Your task to perform on an android device: turn off priority inbox in the gmail app Image 0: 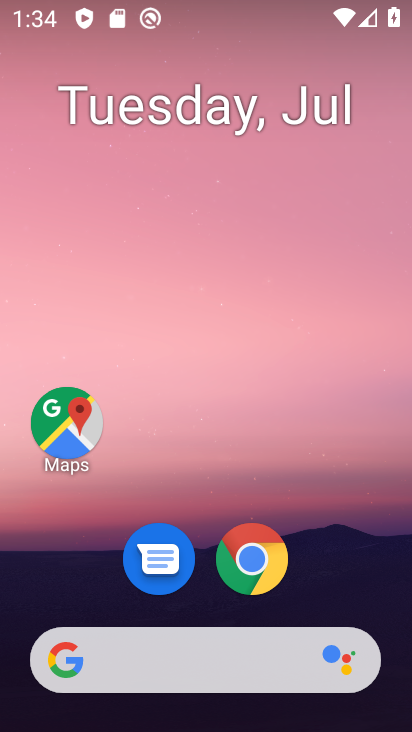
Step 0: drag from (351, 580) to (376, 92)
Your task to perform on an android device: turn off priority inbox in the gmail app Image 1: 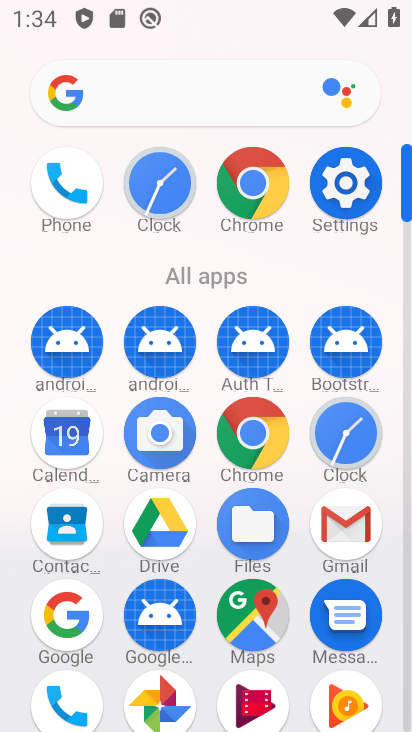
Step 1: click (352, 531)
Your task to perform on an android device: turn off priority inbox in the gmail app Image 2: 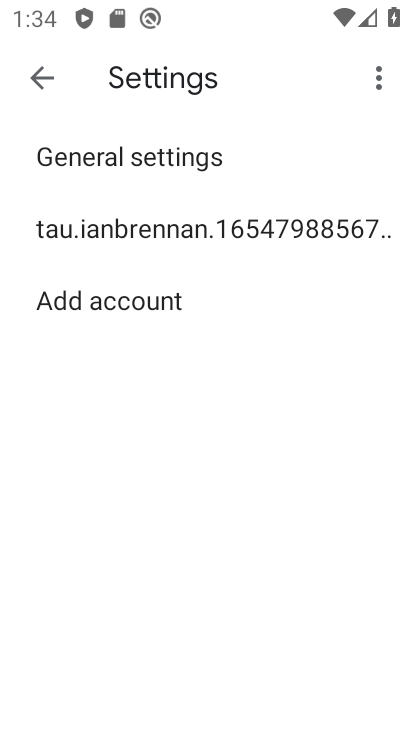
Step 2: click (248, 242)
Your task to perform on an android device: turn off priority inbox in the gmail app Image 3: 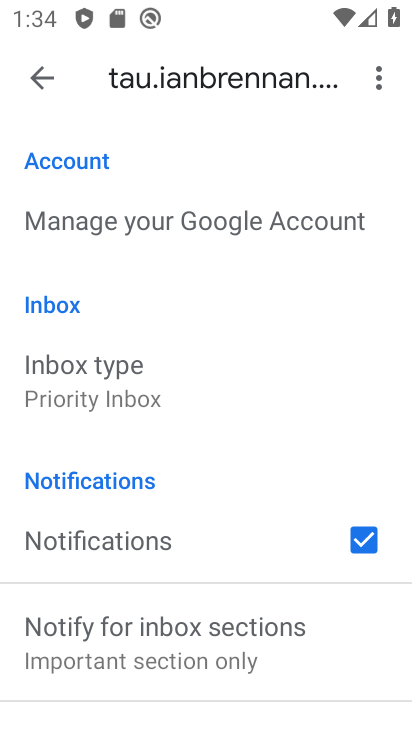
Step 3: drag from (273, 499) to (281, 425)
Your task to perform on an android device: turn off priority inbox in the gmail app Image 4: 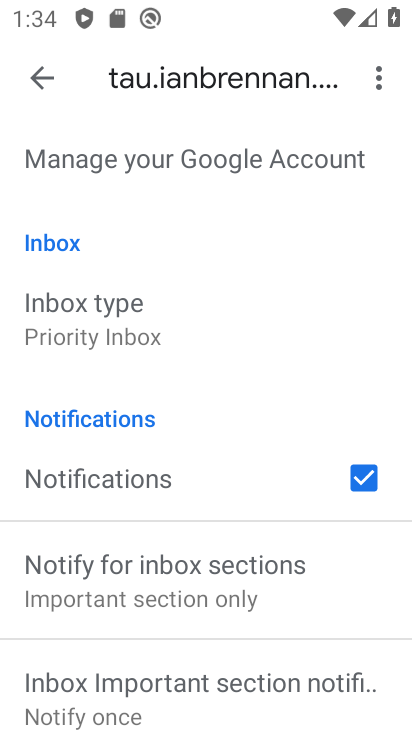
Step 4: drag from (282, 561) to (292, 438)
Your task to perform on an android device: turn off priority inbox in the gmail app Image 5: 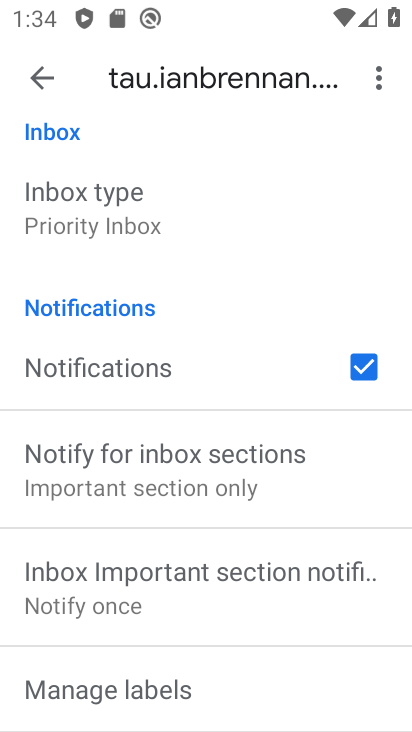
Step 5: drag from (296, 544) to (299, 433)
Your task to perform on an android device: turn off priority inbox in the gmail app Image 6: 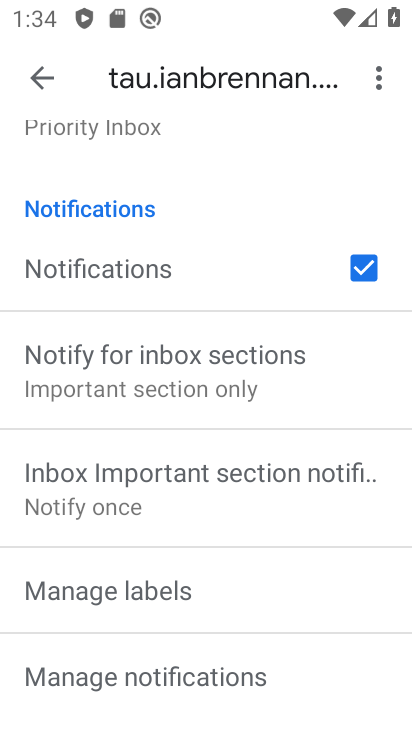
Step 6: drag from (294, 548) to (302, 417)
Your task to perform on an android device: turn off priority inbox in the gmail app Image 7: 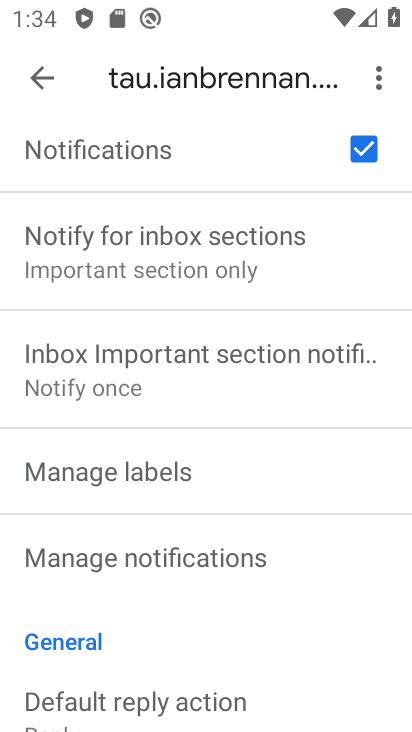
Step 7: drag from (321, 564) to (324, 443)
Your task to perform on an android device: turn off priority inbox in the gmail app Image 8: 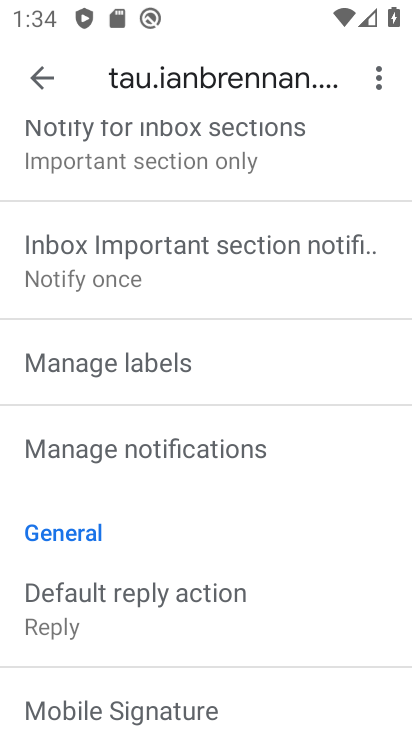
Step 8: drag from (324, 560) to (324, 450)
Your task to perform on an android device: turn off priority inbox in the gmail app Image 9: 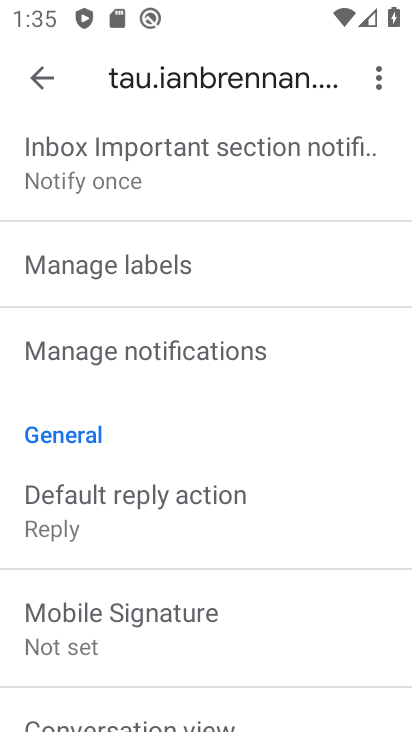
Step 9: drag from (312, 589) to (321, 489)
Your task to perform on an android device: turn off priority inbox in the gmail app Image 10: 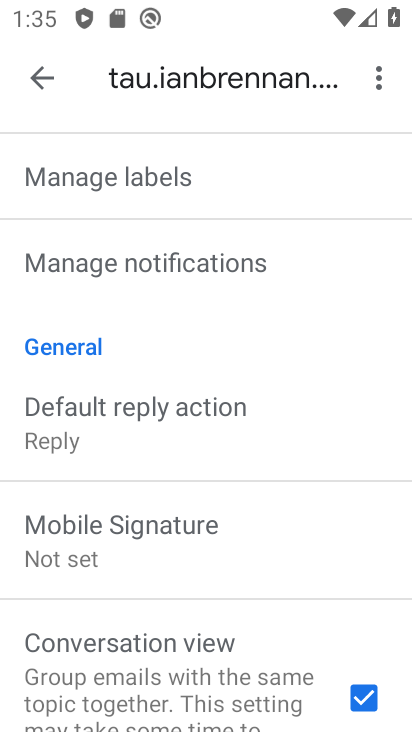
Step 10: drag from (312, 587) to (314, 445)
Your task to perform on an android device: turn off priority inbox in the gmail app Image 11: 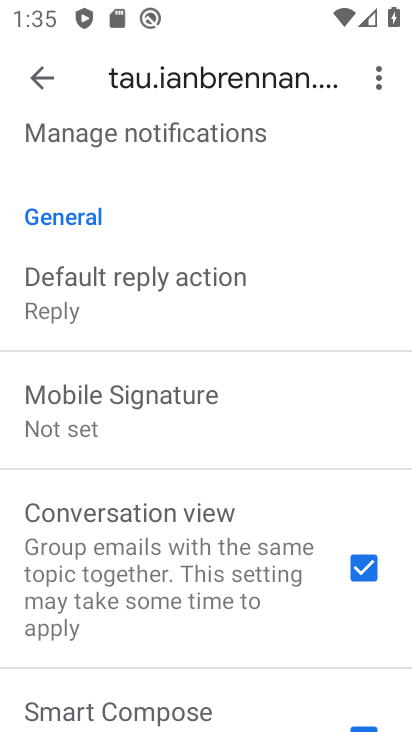
Step 11: drag from (293, 635) to (324, 326)
Your task to perform on an android device: turn off priority inbox in the gmail app Image 12: 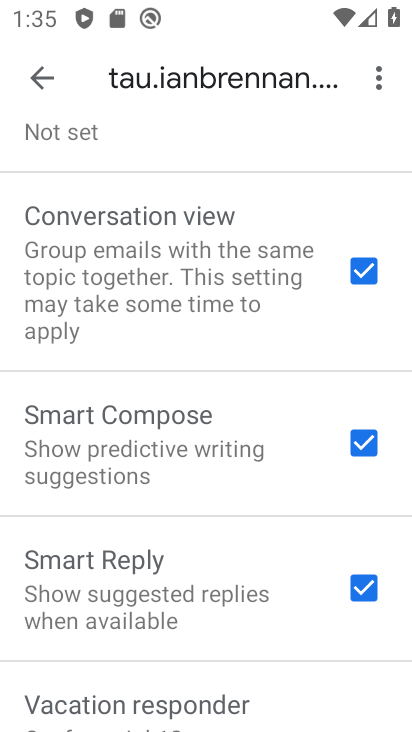
Step 12: drag from (292, 541) to (288, 353)
Your task to perform on an android device: turn off priority inbox in the gmail app Image 13: 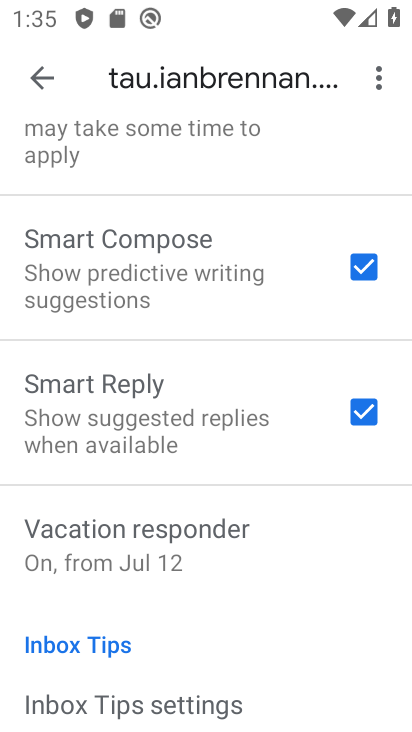
Step 13: drag from (286, 329) to (289, 443)
Your task to perform on an android device: turn off priority inbox in the gmail app Image 14: 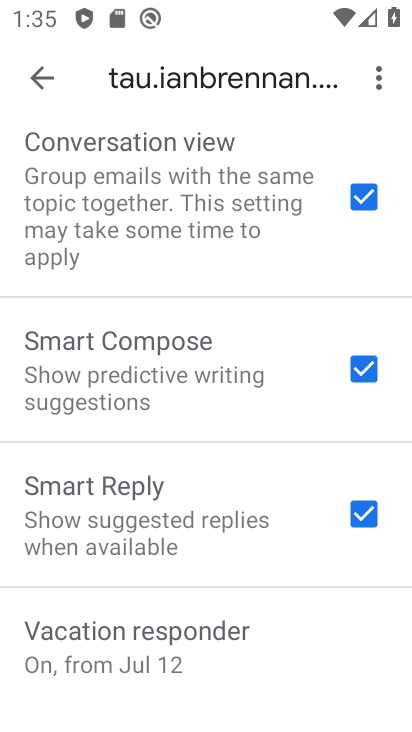
Step 14: drag from (297, 293) to (297, 403)
Your task to perform on an android device: turn off priority inbox in the gmail app Image 15: 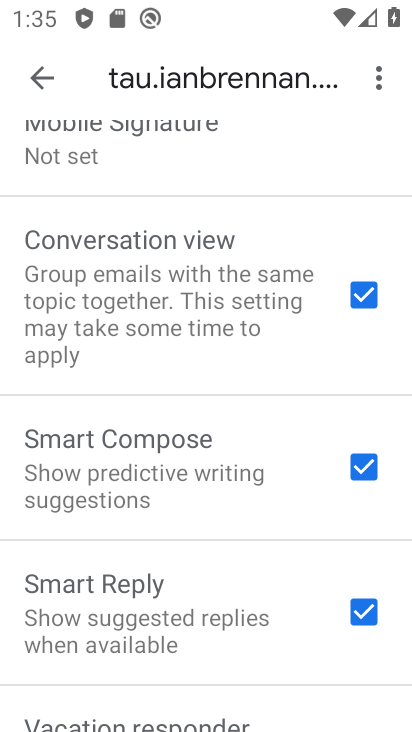
Step 15: drag from (291, 275) to (300, 413)
Your task to perform on an android device: turn off priority inbox in the gmail app Image 16: 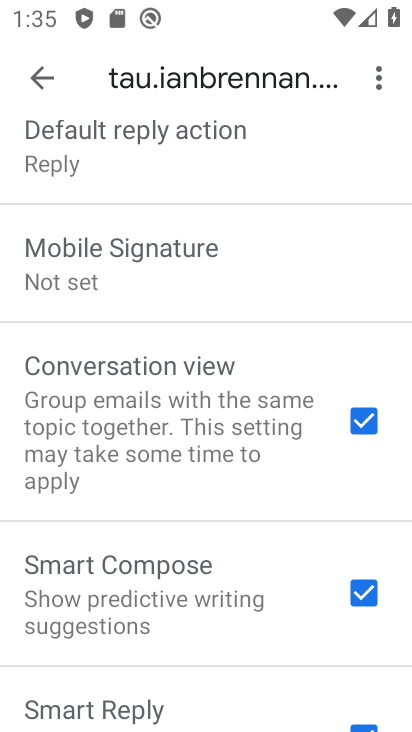
Step 16: drag from (289, 221) to (295, 371)
Your task to perform on an android device: turn off priority inbox in the gmail app Image 17: 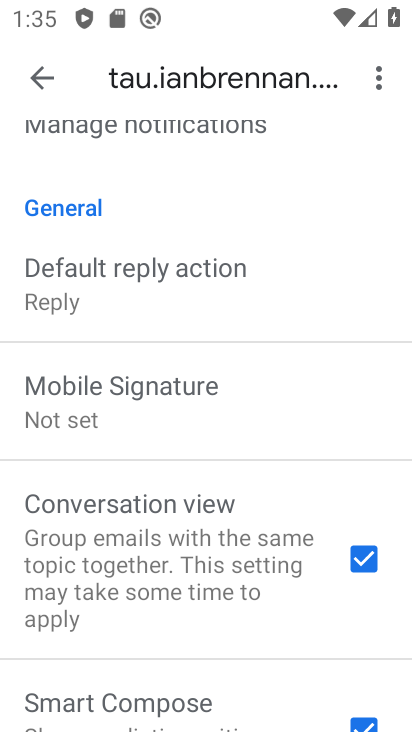
Step 17: drag from (311, 208) to (323, 424)
Your task to perform on an android device: turn off priority inbox in the gmail app Image 18: 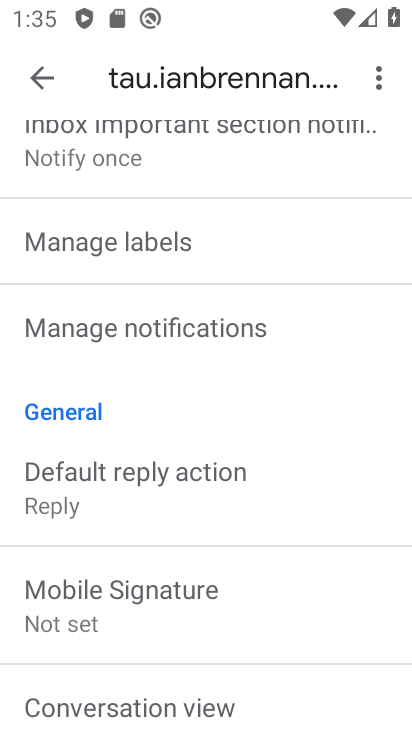
Step 18: drag from (314, 170) to (323, 375)
Your task to perform on an android device: turn off priority inbox in the gmail app Image 19: 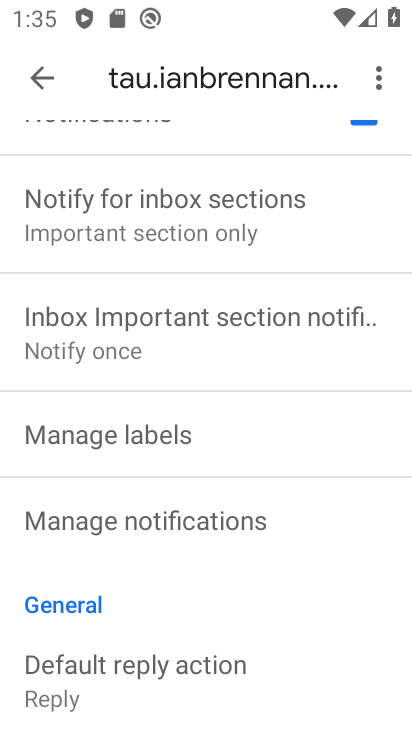
Step 19: drag from (324, 183) to (338, 375)
Your task to perform on an android device: turn off priority inbox in the gmail app Image 20: 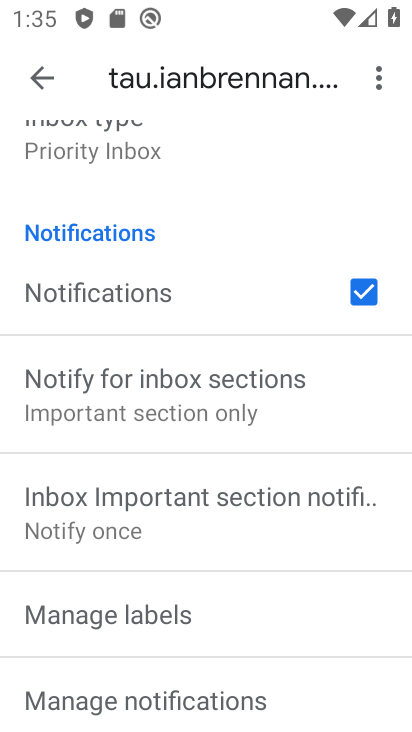
Step 20: click (134, 159)
Your task to perform on an android device: turn off priority inbox in the gmail app Image 21: 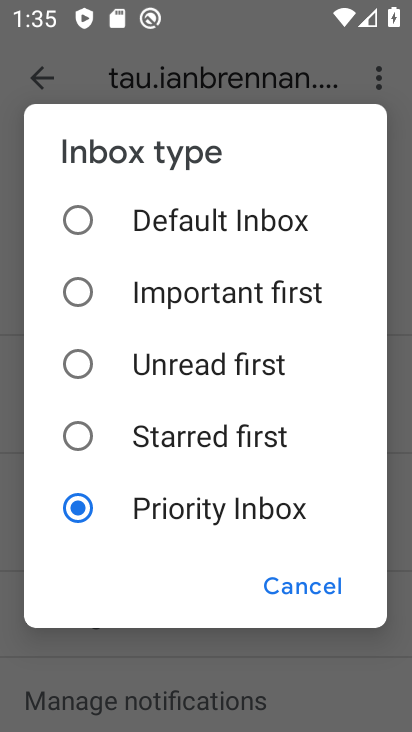
Step 21: click (167, 237)
Your task to perform on an android device: turn off priority inbox in the gmail app Image 22: 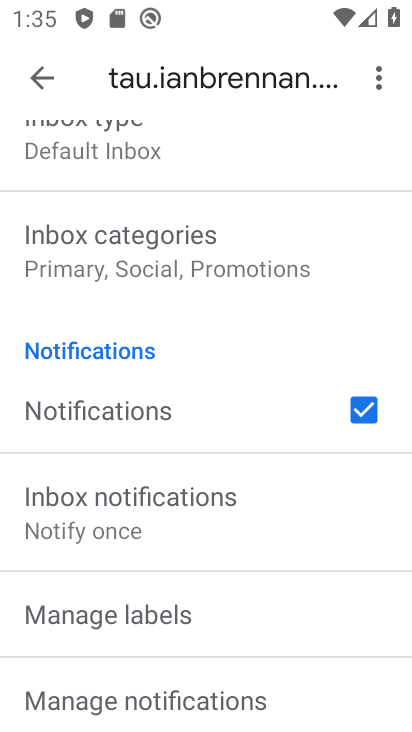
Step 22: task complete